Your task to perform on an android device: check android version Image 0: 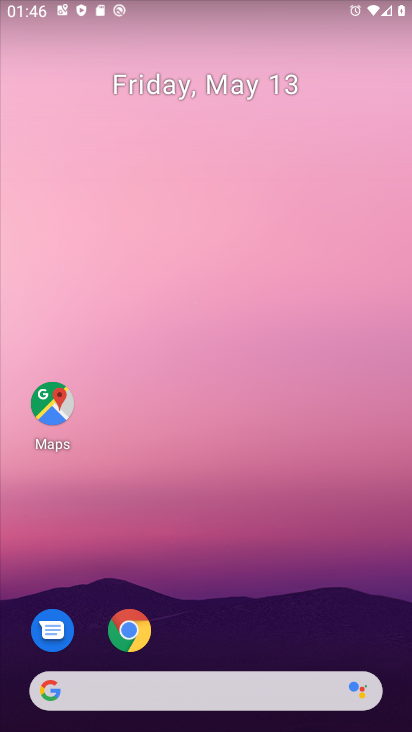
Step 0: drag from (211, 706) to (226, 291)
Your task to perform on an android device: check android version Image 1: 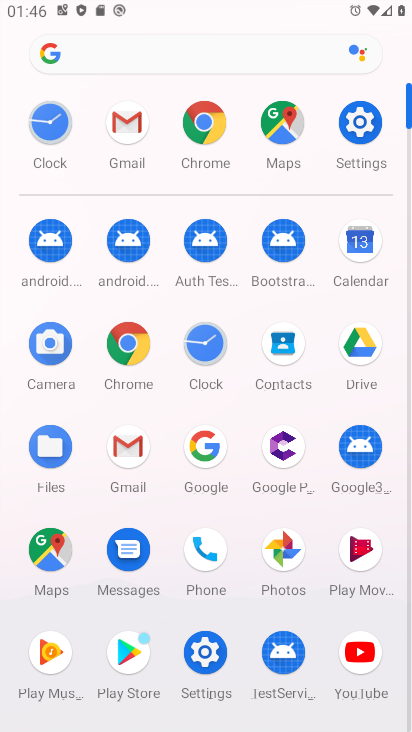
Step 1: click (348, 131)
Your task to perform on an android device: check android version Image 2: 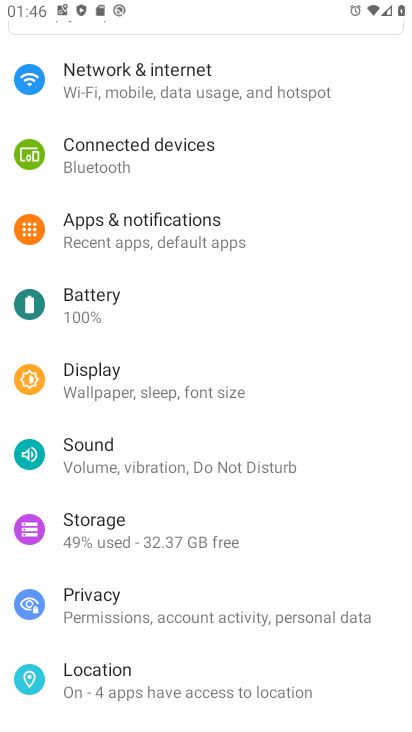
Step 2: drag from (208, 208) to (195, 376)
Your task to perform on an android device: check android version Image 3: 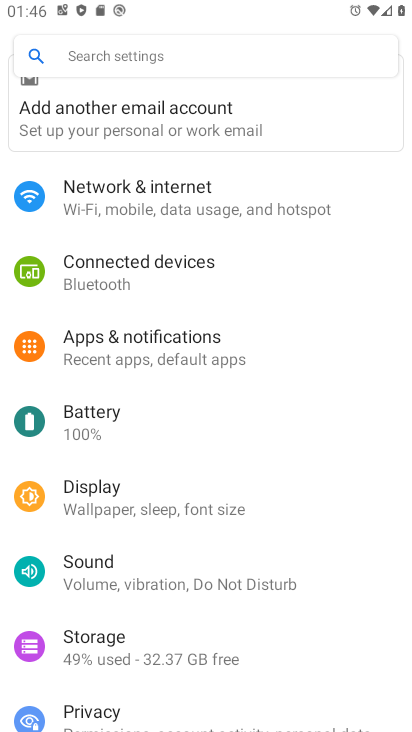
Step 3: click (131, 61)
Your task to perform on an android device: check android version Image 4: 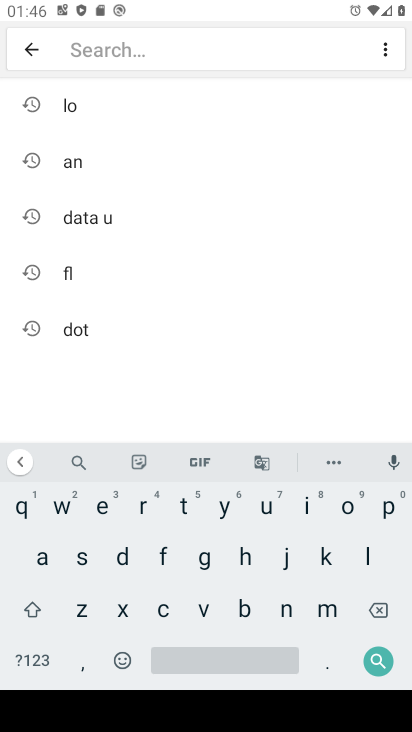
Step 4: click (40, 562)
Your task to perform on an android device: check android version Image 5: 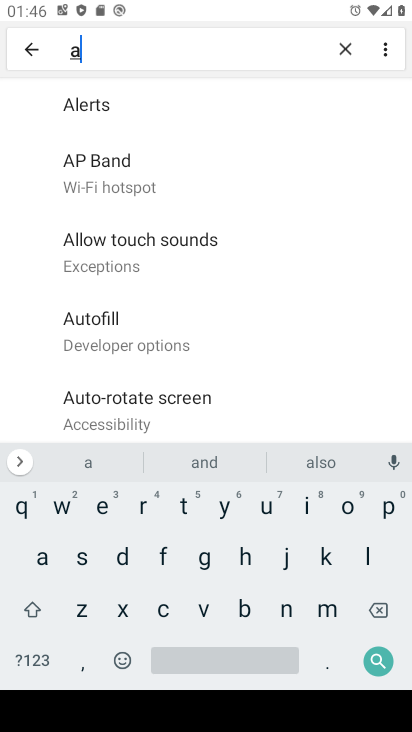
Step 5: click (284, 609)
Your task to perform on an android device: check android version Image 6: 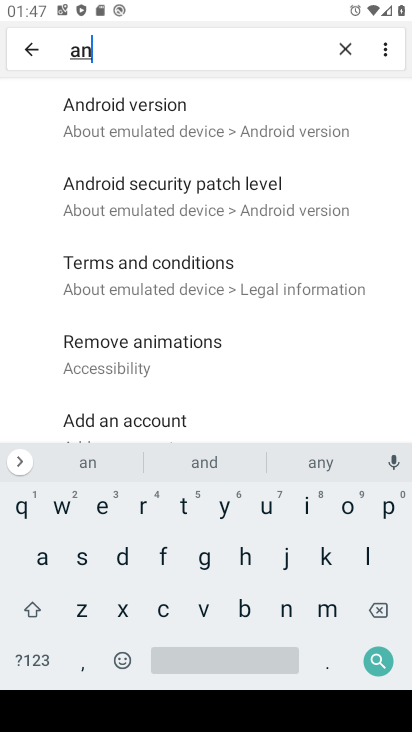
Step 6: click (200, 115)
Your task to perform on an android device: check android version Image 7: 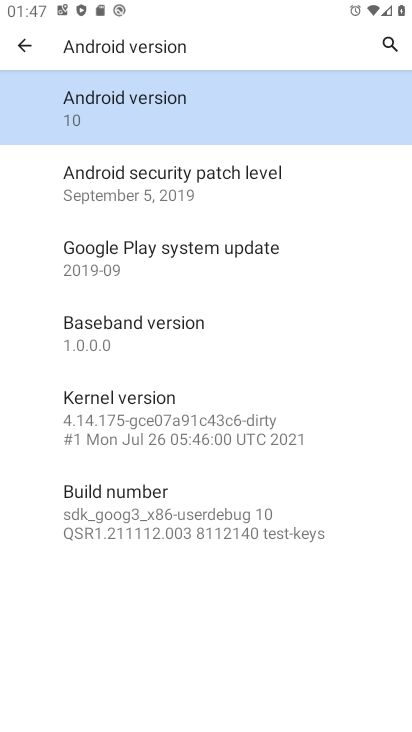
Step 7: click (176, 104)
Your task to perform on an android device: check android version Image 8: 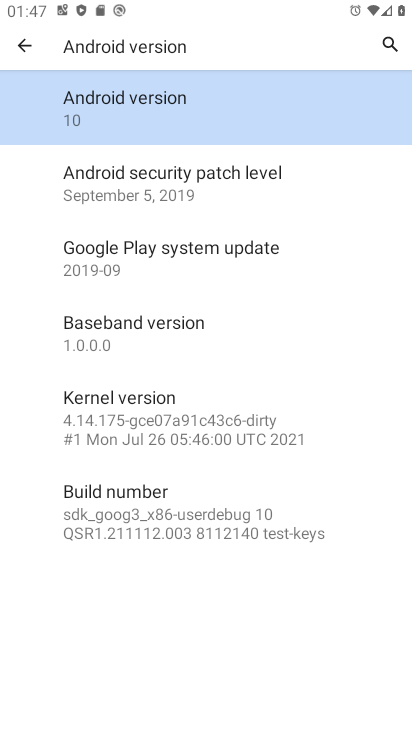
Step 8: task complete